Your task to perform on an android device: Play the last video I watched on Youtube Image 0: 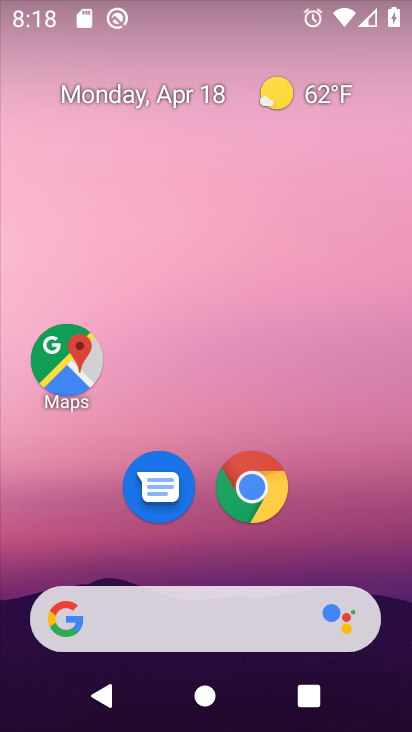
Step 0: press home button
Your task to perform on an android device: Play the last video I watched on Youtube Image 1: 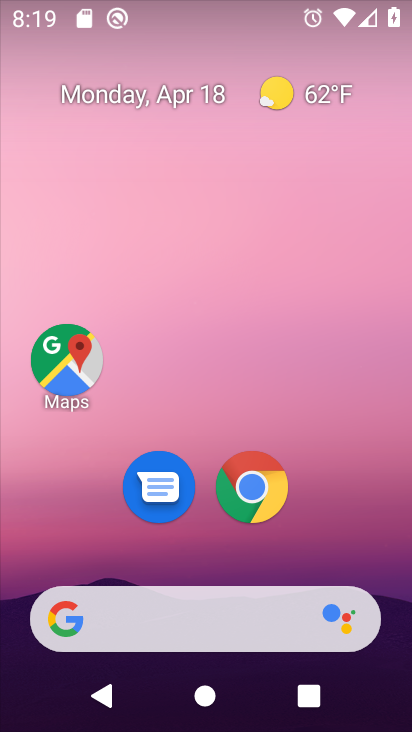
Step 1: drag from (200, 556) to (232, 0)
Your task to perform on an android device: Play the last video I watched on Youtube Image 2: 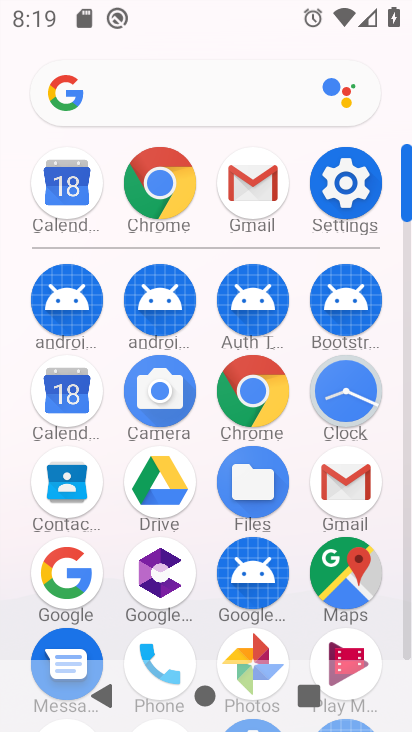
Step 2: drag from (294, 524) to (305, 84)
Your task to perform on an android device: Play the last video I watched on Youtube Image 3: 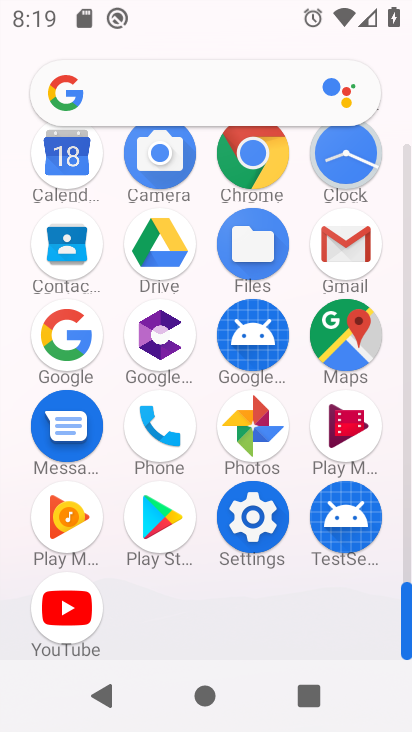
Step 3: click (62, 598)
Your task to perform on an android device: Play the last video I watched on Youtube Image 4: 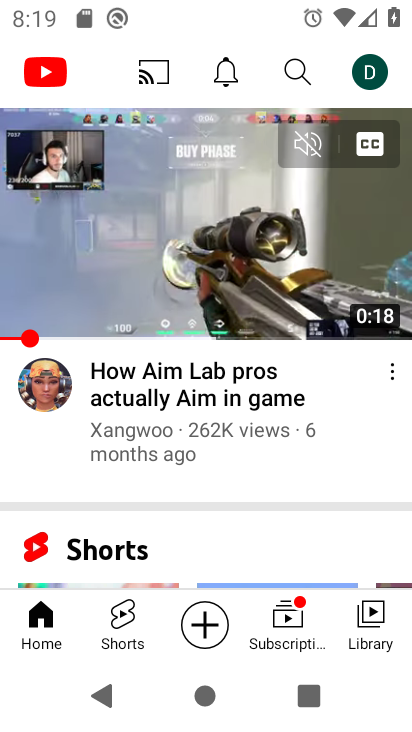
Step 4: click (371, 613)
Your task to perform on an android device: Play the last video I watched on Youtube Image 5: 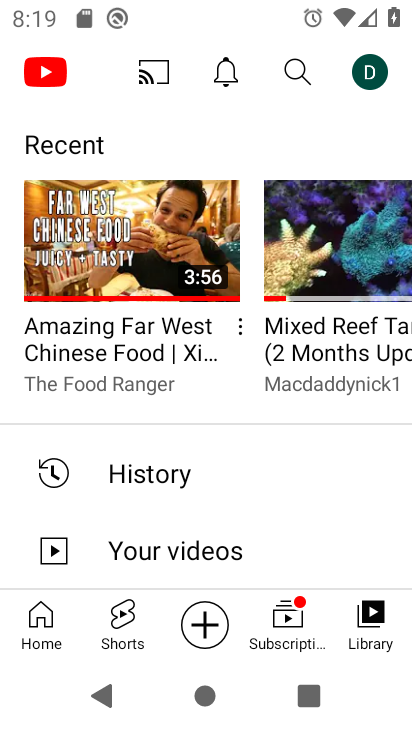
Step 5: click (111, 248)
Your task to perform on an android device: Play the last video I watched on Youtube Image 6: 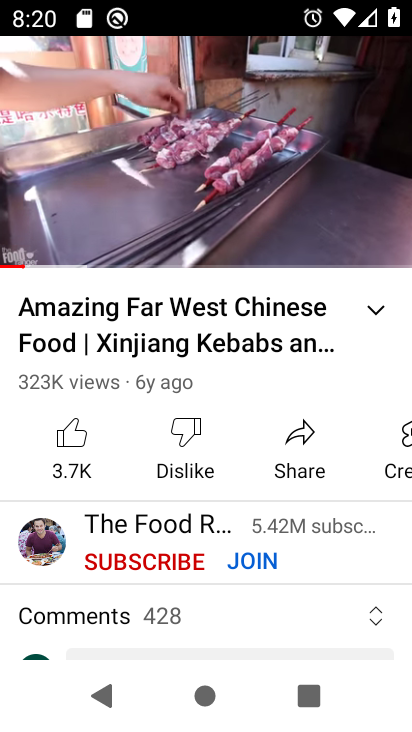
Step 6: task complete